Your task to perform on an android device: Open Wikipedia Image 0: 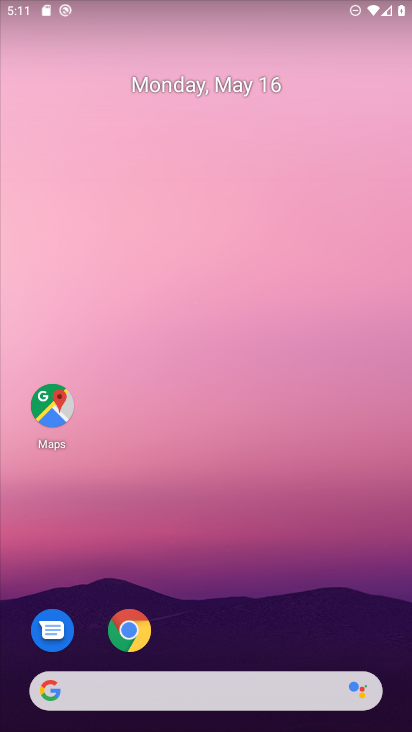
Step 0: click (134, 645)
Your task to perform on an android device: Open Wikipedia Image 1: 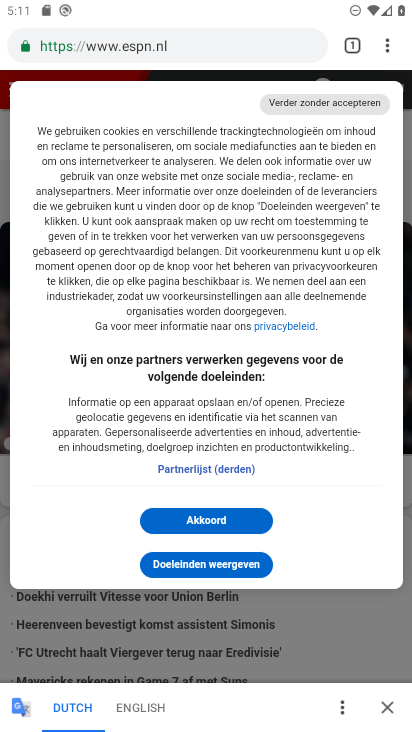
Step 1: click (73, 44)
Your task to perform on an android device: Open Wikipedia Image 2: 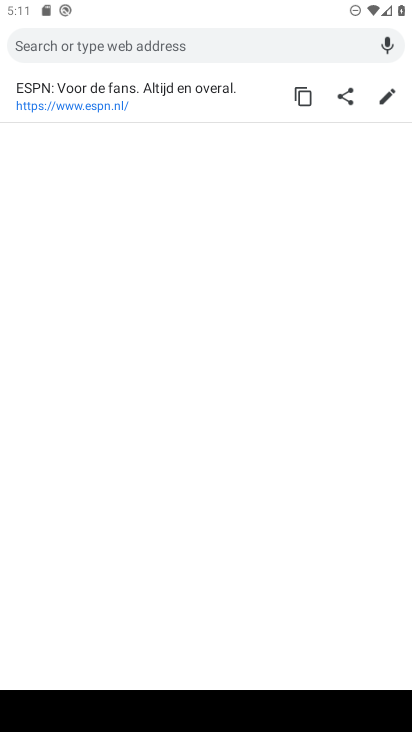
Step 2: click (165, 44)
Your task to perform on an android device: Open Wikipedia Image 3: 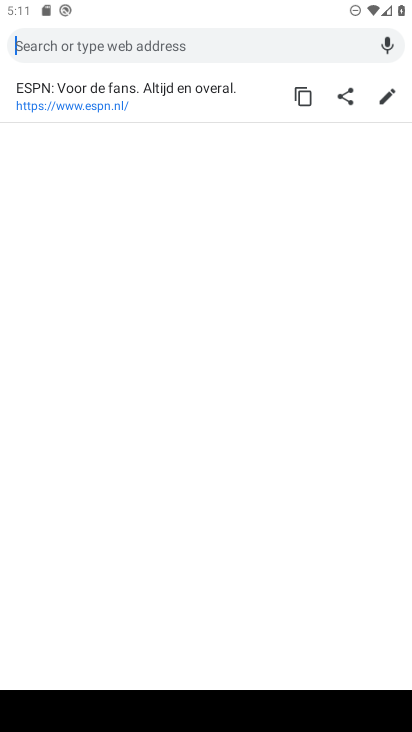
Step 3: type " Wikipedia"
Your task to perform on an android device: Open Wikipedia Image 4: 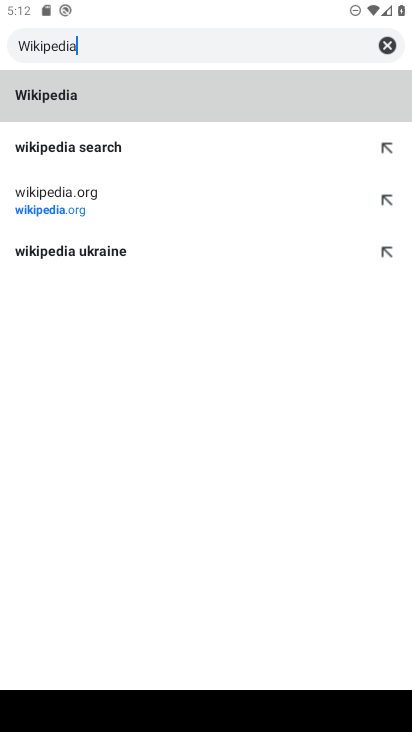
Step 4: click (54, 100)
Your task to perform on an android device: Open Wikipedia Image 5: 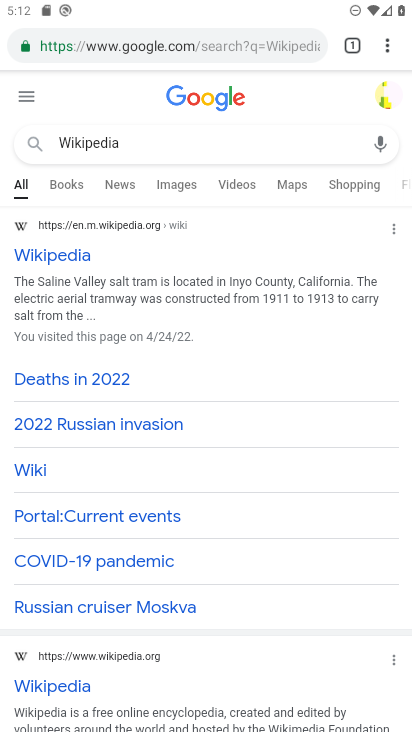
Step 5: click (80, 248)
Your task to perform on an android device: Open Wikipedia Image 6: 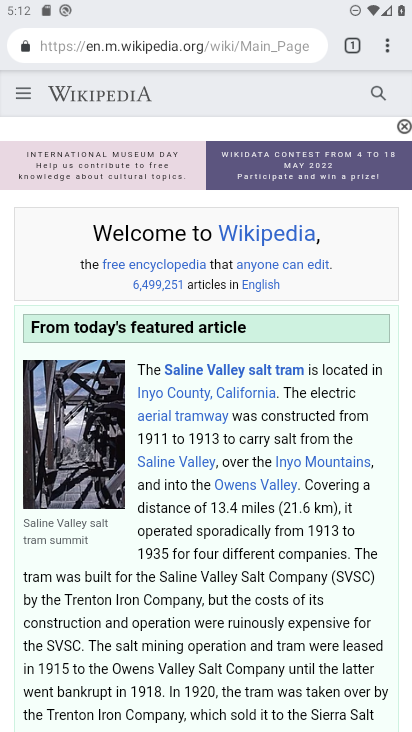
Step 6: task complete